Your task to perform on an android device: Clear the shopping cart on newegg. Search for macbook pro on newegg, select the first entry, add it to the cart, then select checkout. Image 0: 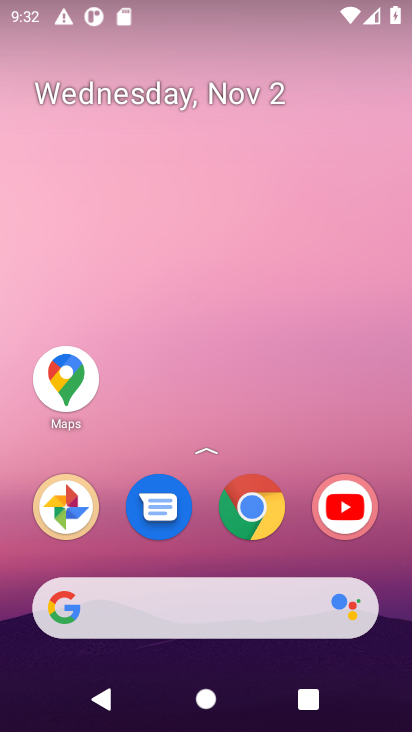
Step 0: click (145, 597)
Your task to perform on an android device: Clear the shopping cart on newegg. Search for macbook pro on newegg, select the first entry, add it to the cart, then select checkout. Image 1: 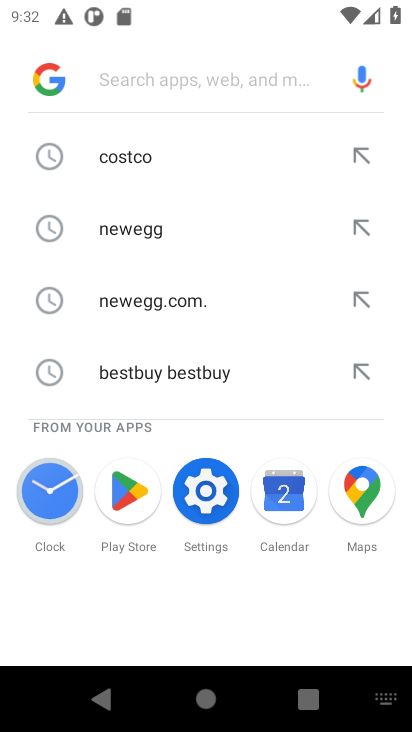
Step 1: click (172, 239)
Your task to perform on an android device: Clear the shopping cart on newegg. Search for macbook pro on newegg, select the first entry, add it to the cart, then select checkout. Image 2: 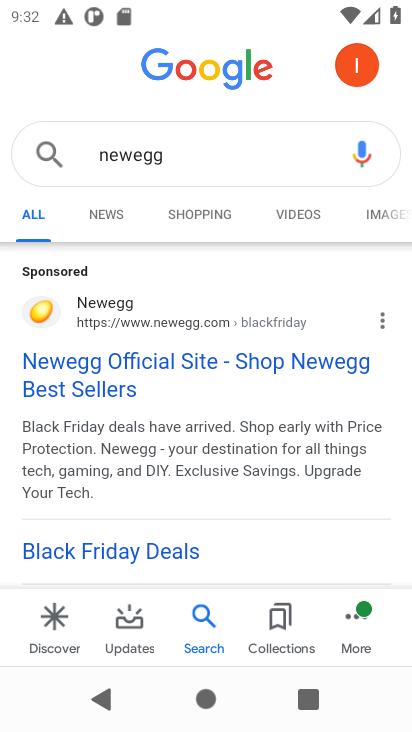
Step 2: click (65, 403)
Your task to perform on an android device: Clear the shopping cart on newegg. Search for macbook pro on newegg, select the first entry, add it to the cart, then select checkout. Image 3: 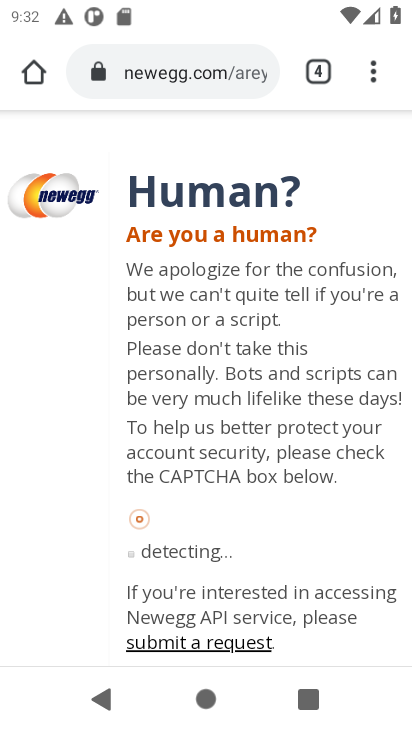
Step 3: task complete